Your task to perform on an android device: change timer sound Image 0: 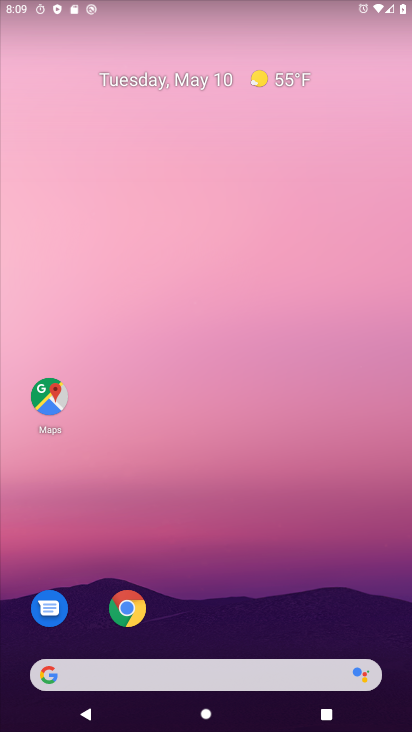
Step 0: drag from (258, 614) to (256, 93)
Your task to perform on an android device: change timer sound Image 1: 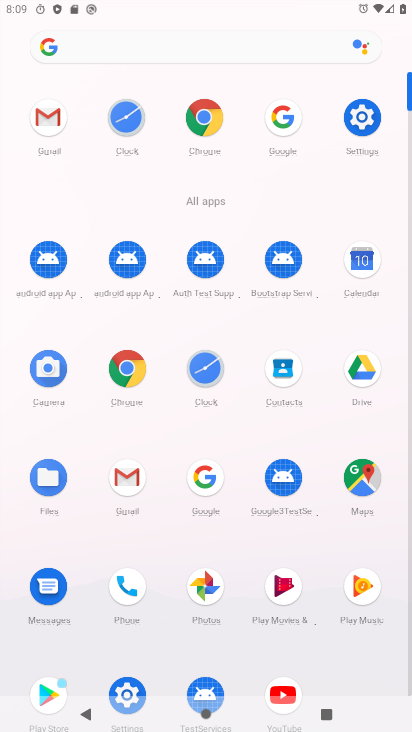
Step 1: click (127, 119)
Your task to perform on an android device: change timer sound Image 2: 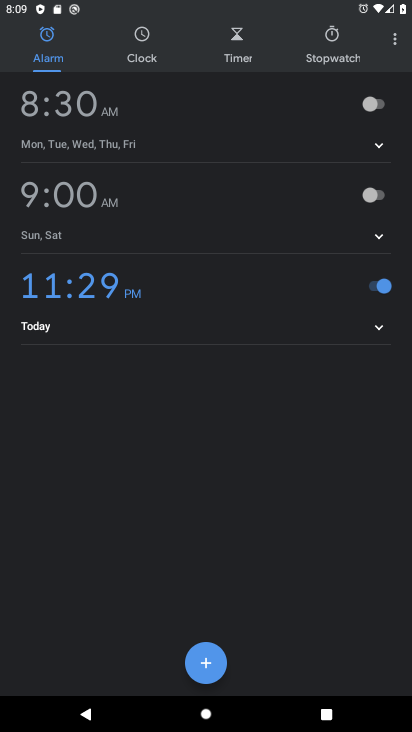
Step 2: click (394, 39)
Your task to perform on an android device: change timer sound Image 3: 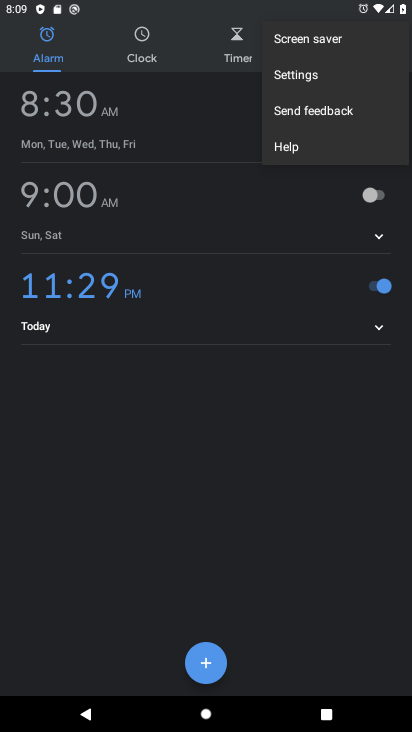
Step 3: click (312, 73)
Your task to perform on an android device: change timer sound Image 4: 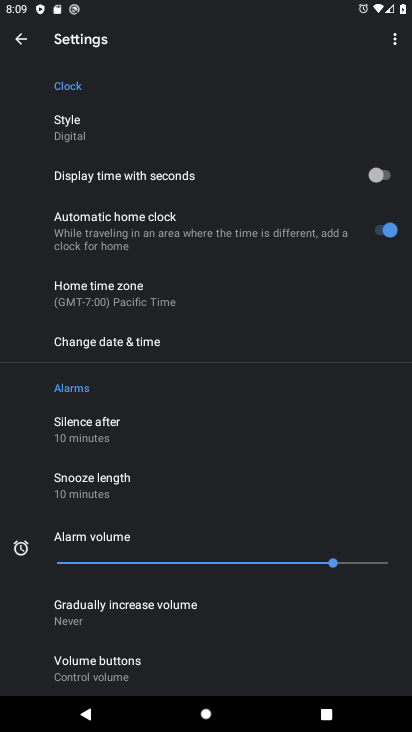
Step 4: drag from (138, 476) to (191, 382)
Your task to perform on an android device: change timer sound Image 5: 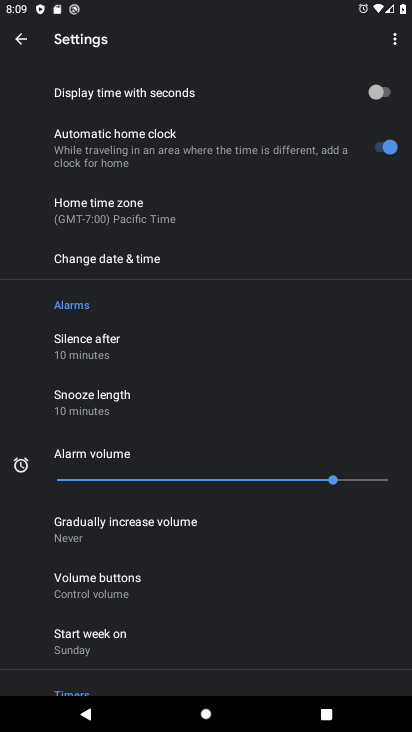
Step 5: drag from (161, 559) to (247, 412)
Your task to perform on an android device: change timer sound Image 6: 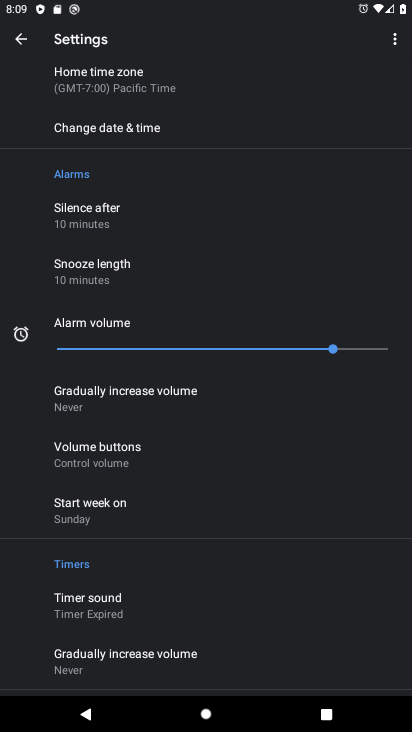
Step 6: click (100, 602)
Your task to perform on an android device: change timer sound Image 7: 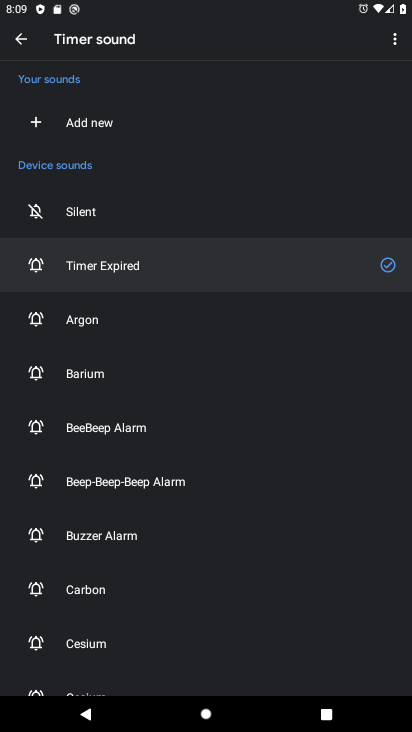
Step 7: click (110, 535)
Your task to perform on an android device: change timer sound Image 8: 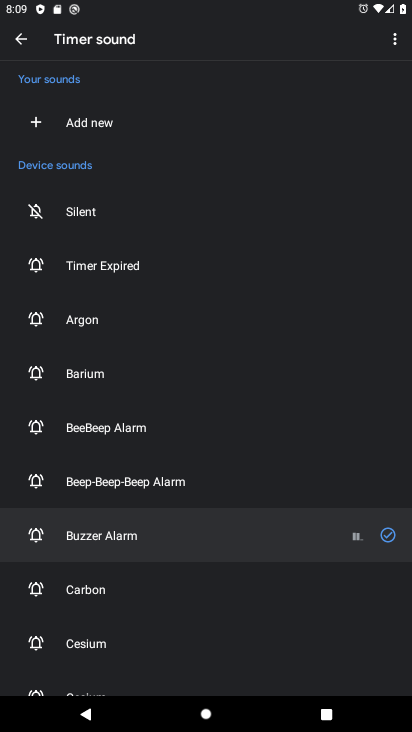
Step 8: task complete